Your task to perform on an android device: Go to Yahoo.com Image 0: 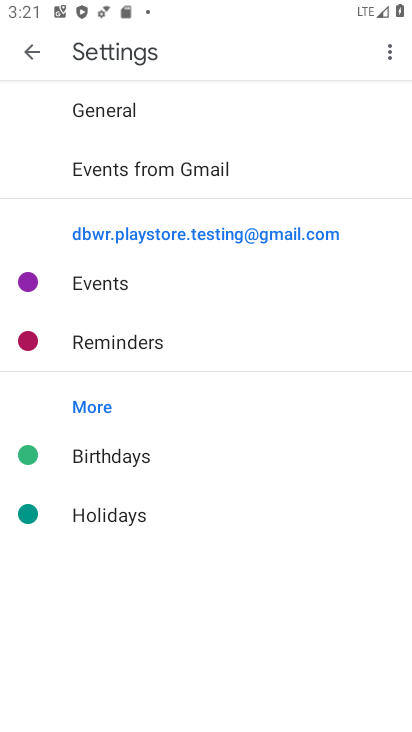
Step 0: press home button
Your task to perform on an android device: Go to Yahoo.com Image 1: 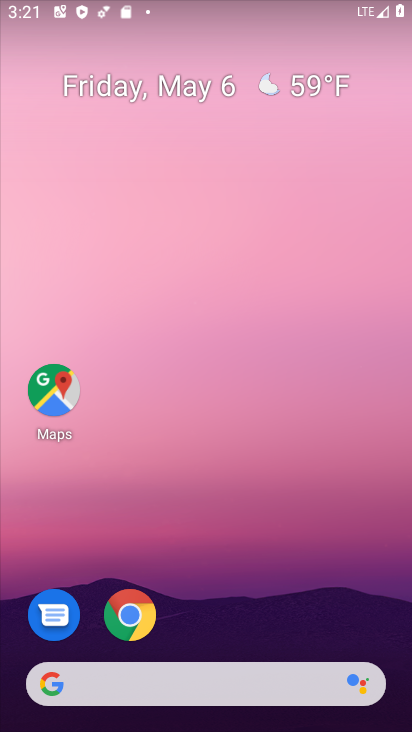
Step 1: drag from (237, 464) to (219, 232)
Your task to perform on an android device: Go to Yahoo.com Image 2: 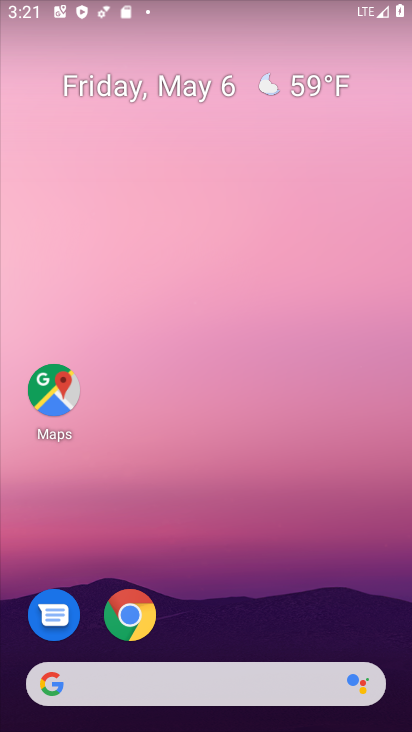
Step 2: drag from (268, 640) to (264, 309)
Your task to perform on an android device: Go to Yahoo.com Image 3: 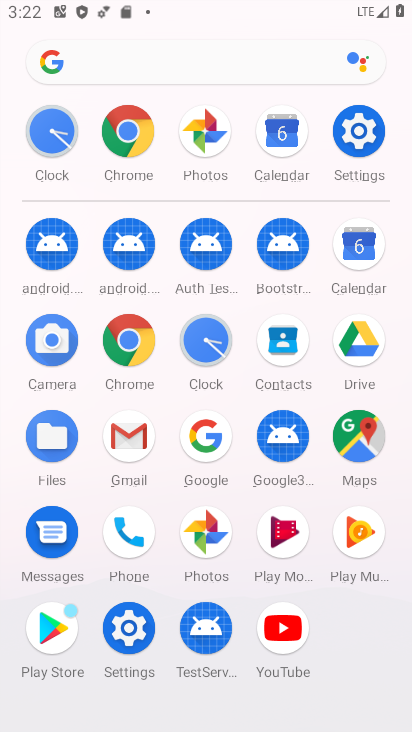
Step 3: click (137, 325)
Your task to perform on an android device: Go to Yahoo.com Image 4: 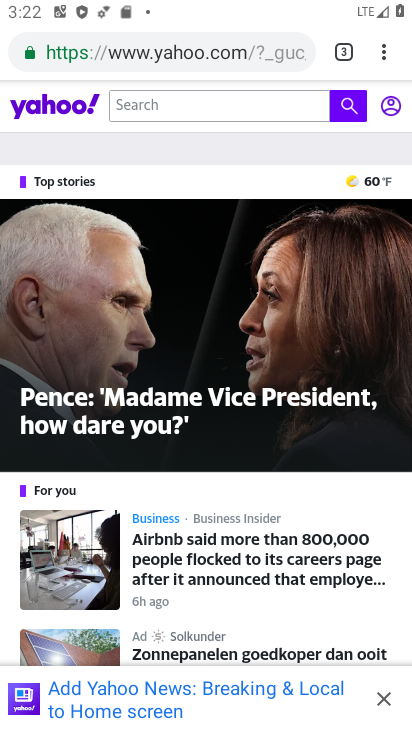
Step 4: task complete